Your task to perform on an android device: Open the calendar app, open the side menu, and click the "Day" option Image 0: 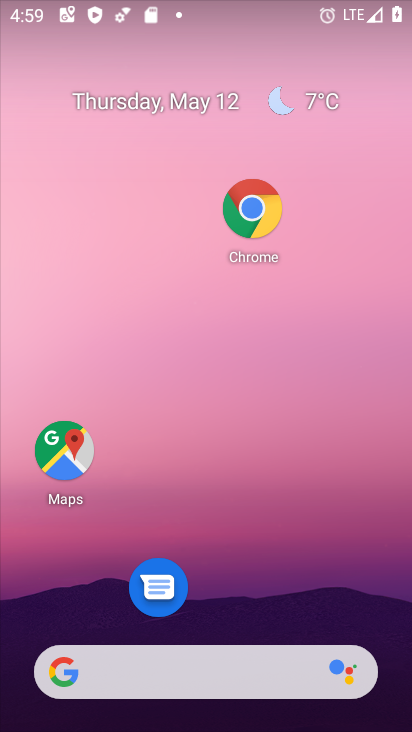
Step 0: drag from (242, 601) to (239, 0)
Your task to perform on an android device: Open the calendar app, open the side menu, and click the "Day" option Image 1: 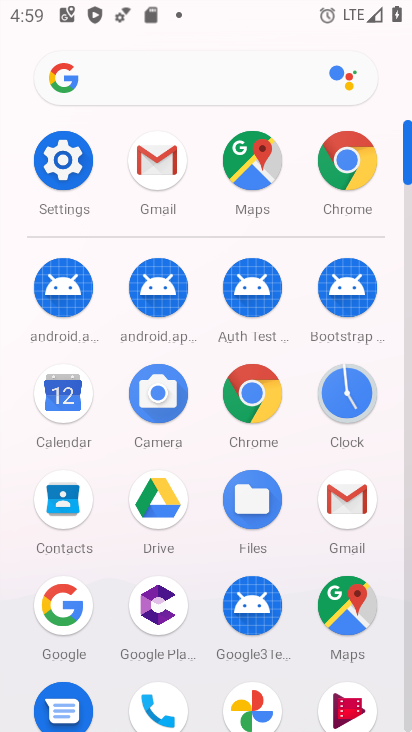
Step 1: click (69, 417)
Your task to perform on an android device: Open the calendar app, open the side menu, and click the "Day" option Image 2: 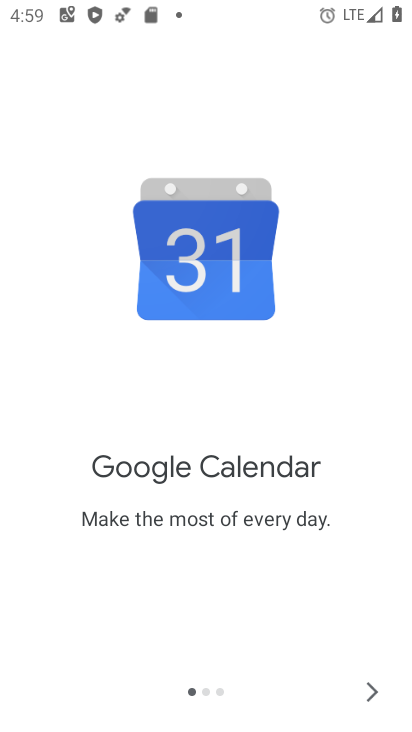
Step 2: click (370, 688)
Your task to perform on an android device: Open the calendar app, open the side menu, and click the "Day" option Image 3: 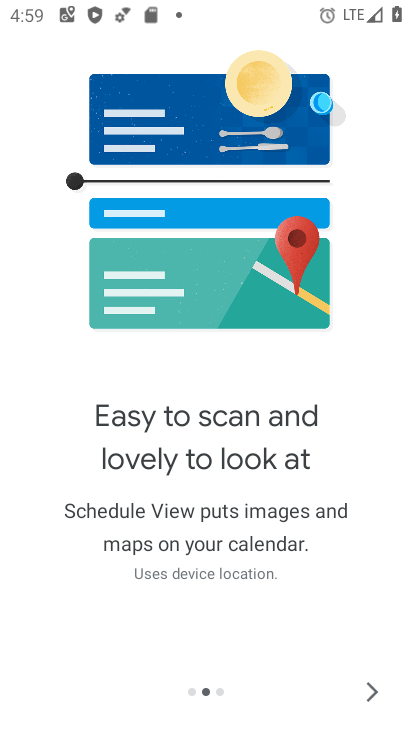
Step 3: click (370, 688)
Your task to perform on an android device: Open the calendar app, open the side menu, and click the "Day" option Image 4: 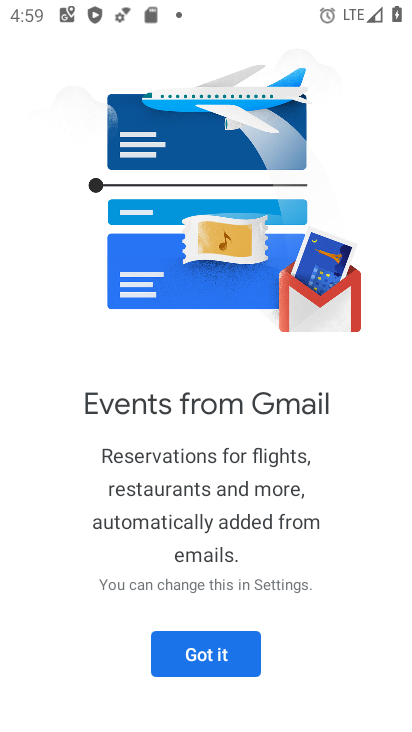
Step 4: click (221, 658)
Your task to perform on an android device: Open the calendar app, open the side menu, and click the "Day" option Image 5: 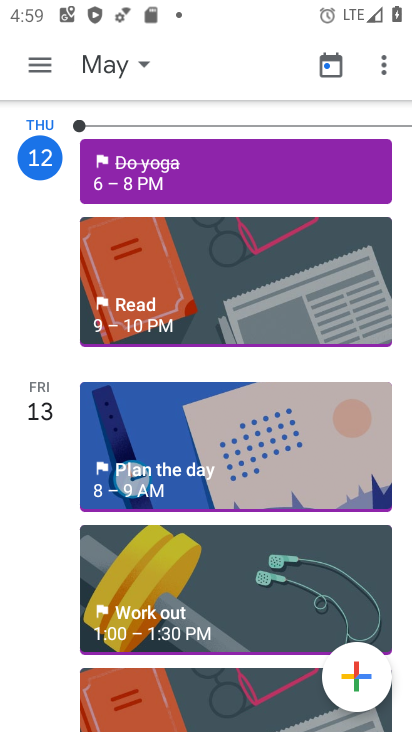
Step 5: click (26, 56)
Your task to perform on an android device: Open the calendar app, open the side menu, and click the "Day" option Image 6: 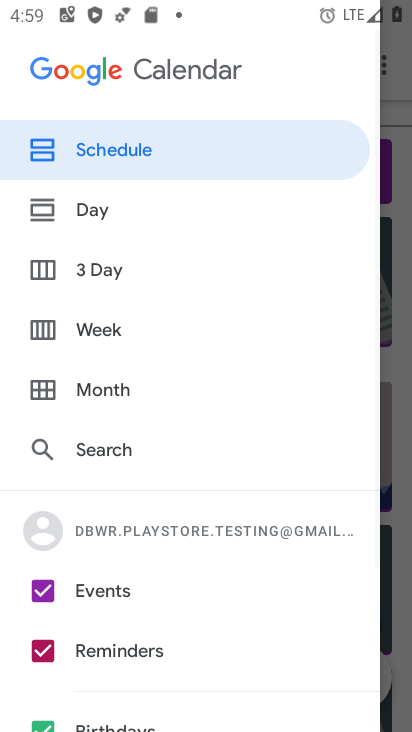
Step 6: click (115, 210)
Your task to perform on an android device: Open the calendar app, open the side menu, and click the "Day" option Image 7: 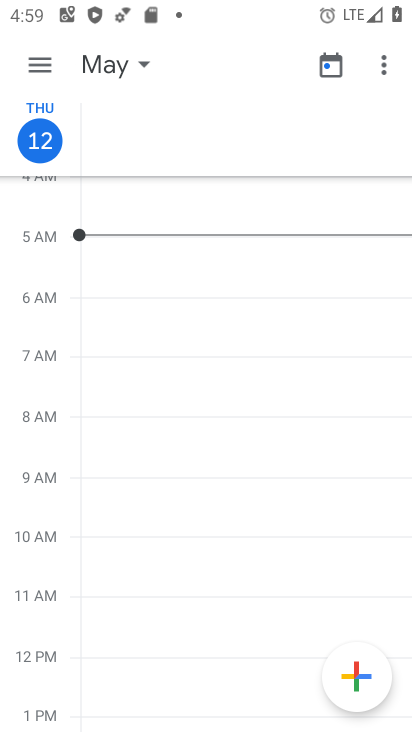
Step 7: task complete